Your task to perform on an android device: Open Google Chrome and open the bookmarks view Image 0: 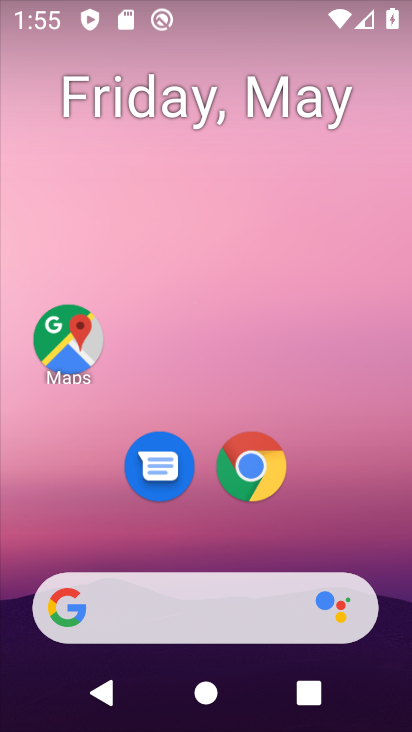
Step 0: drag from (274, 538) to (334, 97)
Your task to perform on an android device: Open Google Chrome and open the bookmarks view Image 1: 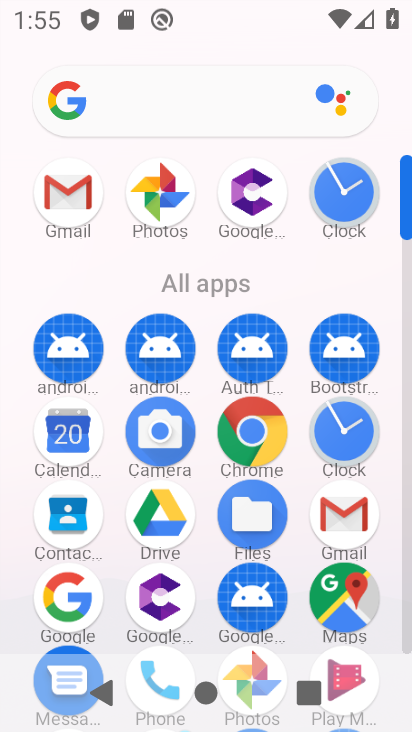
Step 1: click (268, 436)
Your task to perform on an android device: Open Google Chrome and open the bookmarks view Image 2: 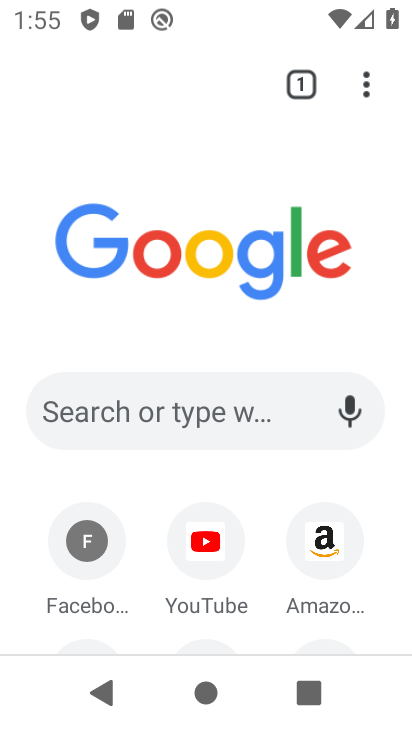
Step 2: task complete